Your task to perform on an android device: turn on wifi Image 0: 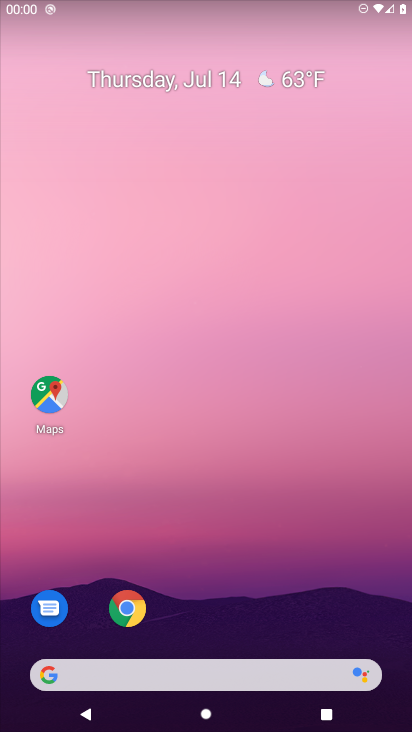
Step 0: press home button
Your task to perform on an android device: turn on wifi Image 1: 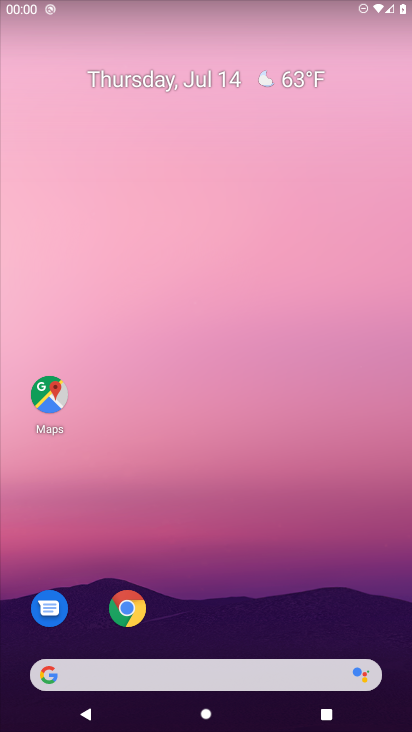
Step 1: task complete